Your task to perform on an android device: Is it going to rain tomorrow? Image 0: 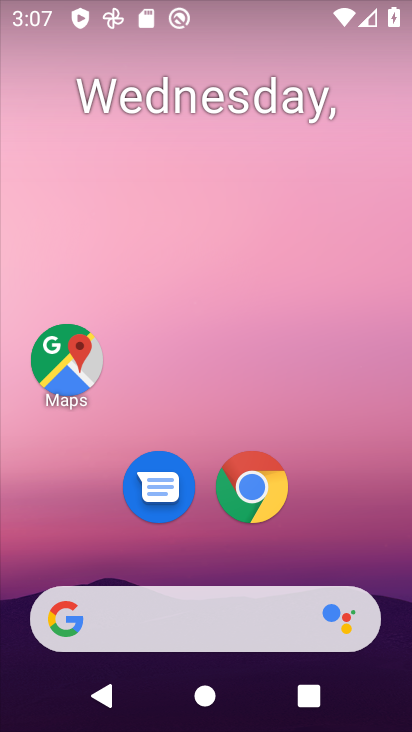
Step 0: drag from (360, 537) to (344, 181)
Your task to perform on an android device: Is it going to rain tomorrow? Image 1: 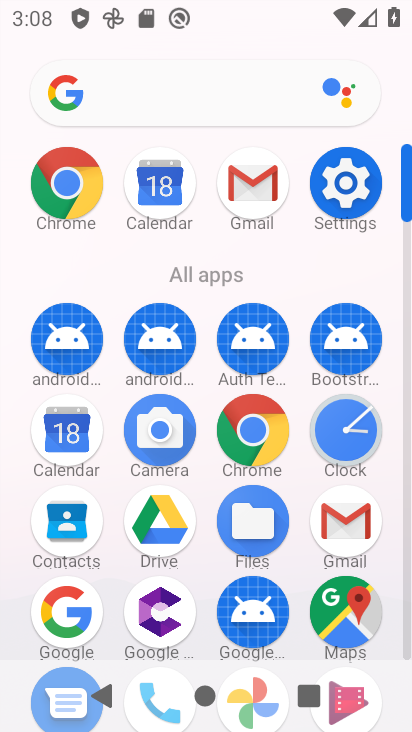
Step 1: click (78, 627)
Your task to perform on an android device: Is it going to rain tomorrow? Image 2: 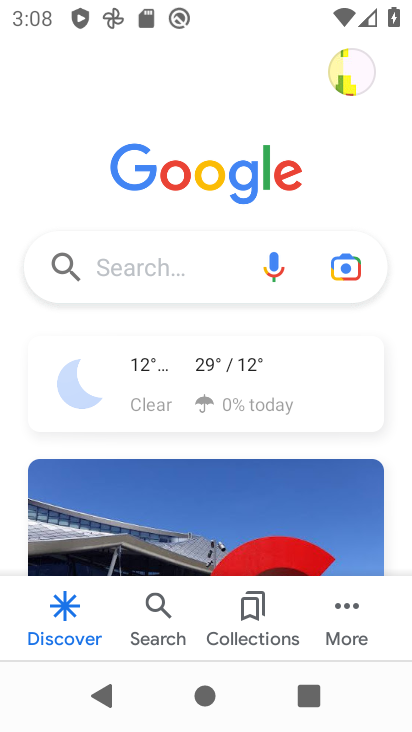
Step 2: click (162, 273)
Your task to perform on an android device: Is it going to rain tomorrow? Image 3: 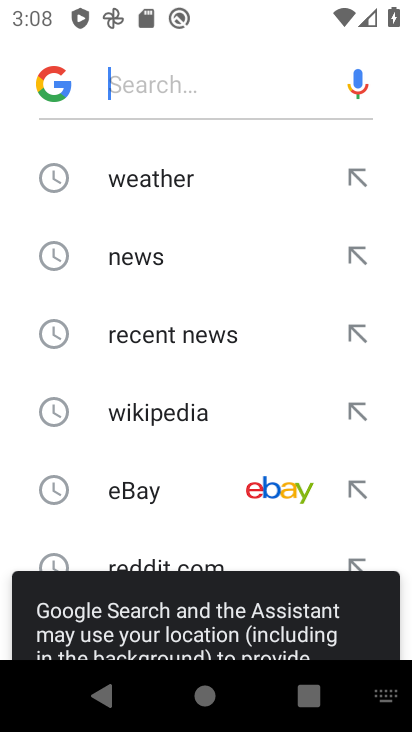
Step 3: click (188, 190)
Your task to perform on an android device: Is it going to rain tomorrow? Image 4: 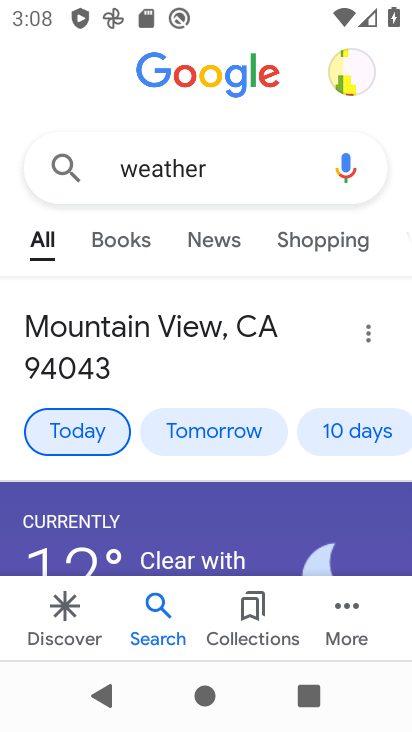
Step 4: click (221, 451)
Your task to perform on an android device: Is it going to rain tomorrow? Image 5: 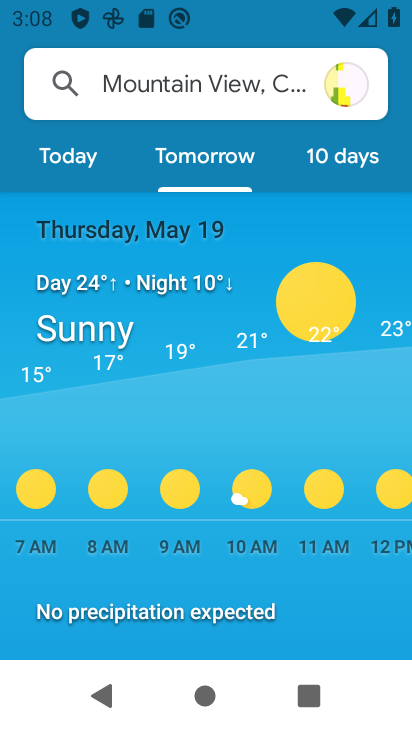
Step 5: task complete